Your task to perform on an android device: empty trash in the gmail app Image 0: 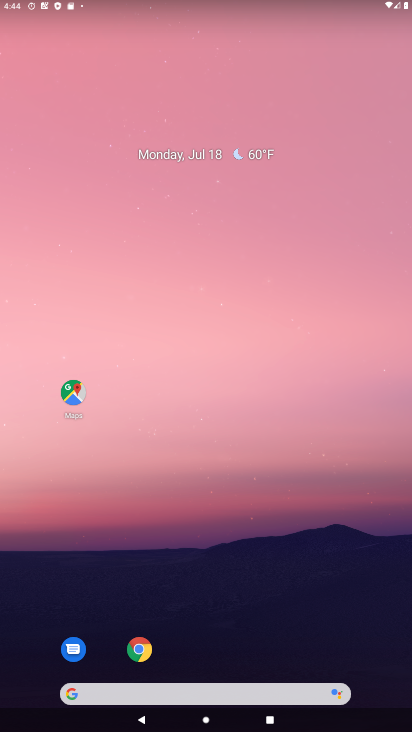
Step 0: drag from (215, 556) to (190, 0)
Your task to perform on an android device: empty trash in the gmail app Image 1: 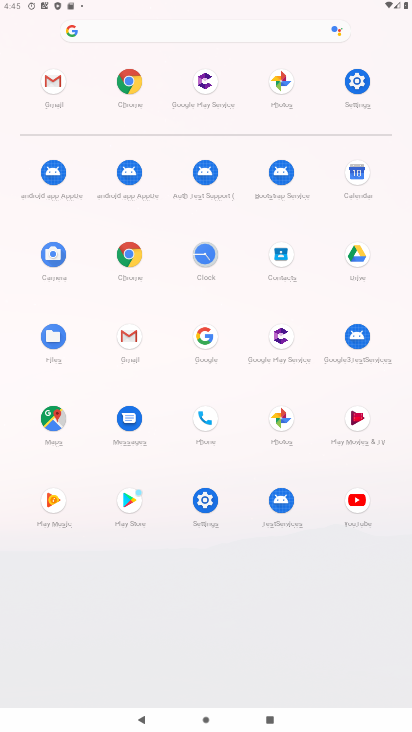
Step 1: click (126, 346)
Your task to perform on an android device: empty trash in the gmail app Image 2: 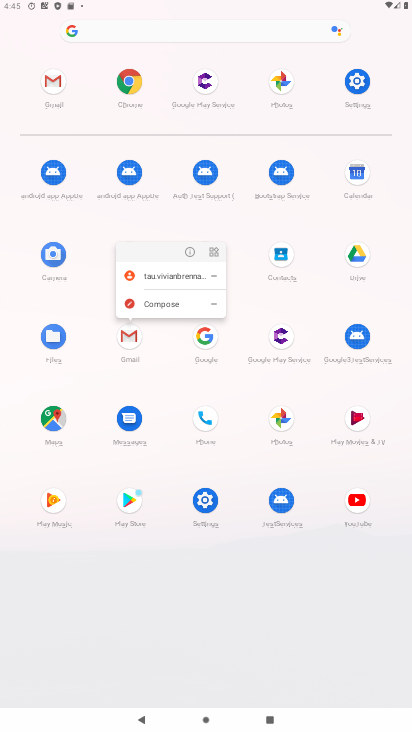
Step 2: click (129, 349)
Your task to perform on an android device: empty trash in the gmail app Image 3: 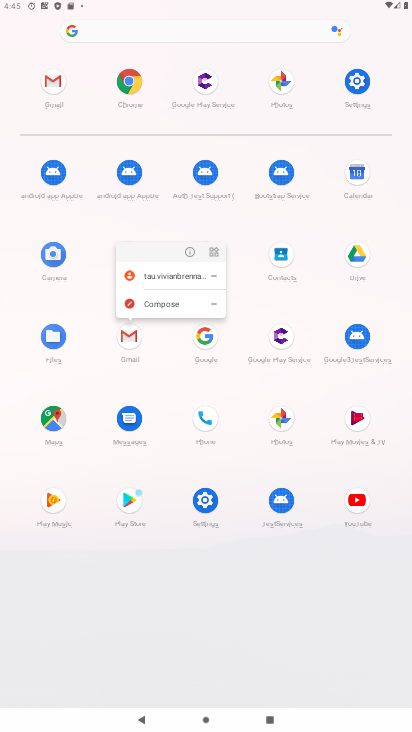
Step 3: click (131, 349)
Your task to perform on an android device: empty trash in the gmail app Image 4: 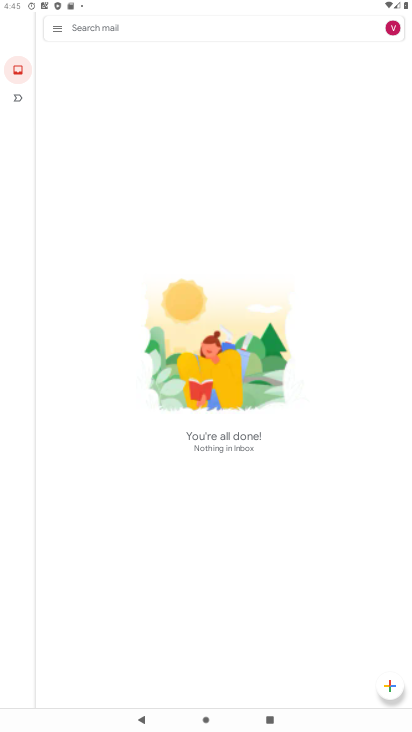
Step 4: click (53, 23)
Your task to perform on an android device: empty trash in the gmail app Image 5: 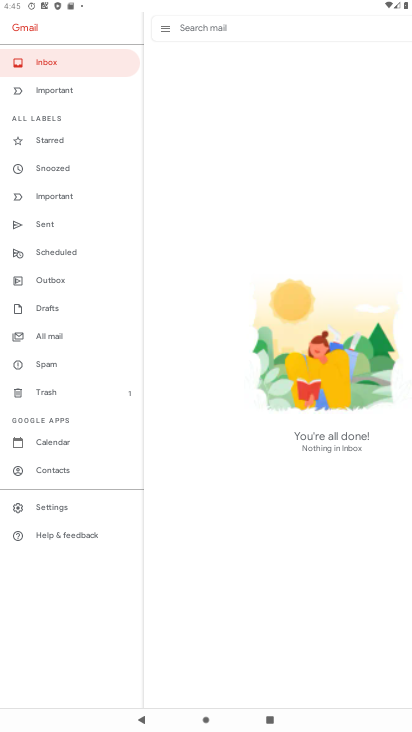
Step 5: click (56, 390)
Your task to perform on an android device: empty trash in the gmail app Image 6: 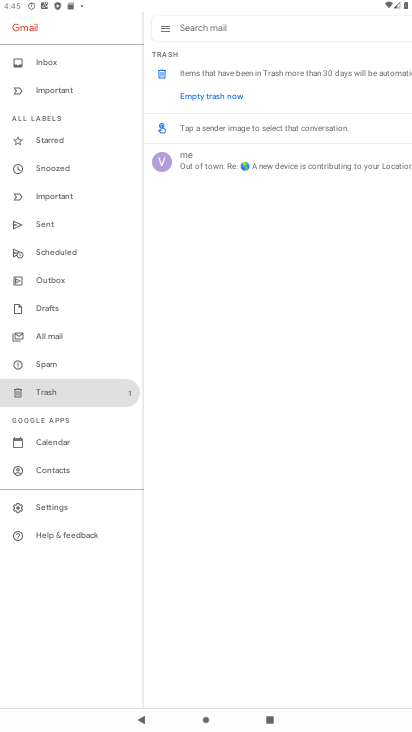
Step 6: click (49, 396)
Your task to perform on an android device: empty trash in the gmail app Image 7: 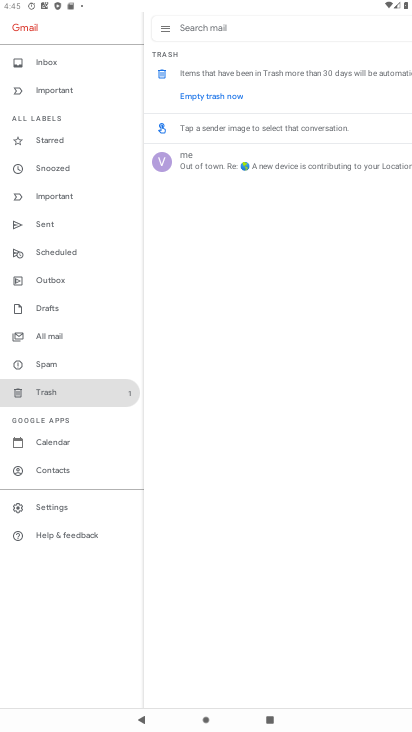
Step 7: click (215, 95)
Your task to perform on an android device: empty trash in the gmail app Image 8: 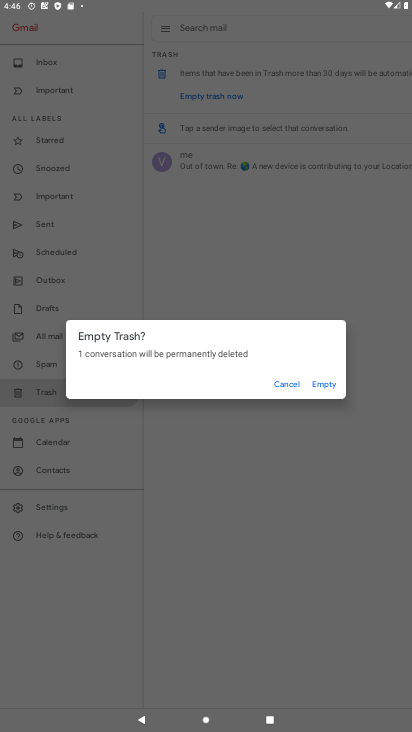
Step 8: click (323, 389)
Your task to perform on an android device: empty trash in the gmail app Image 9: 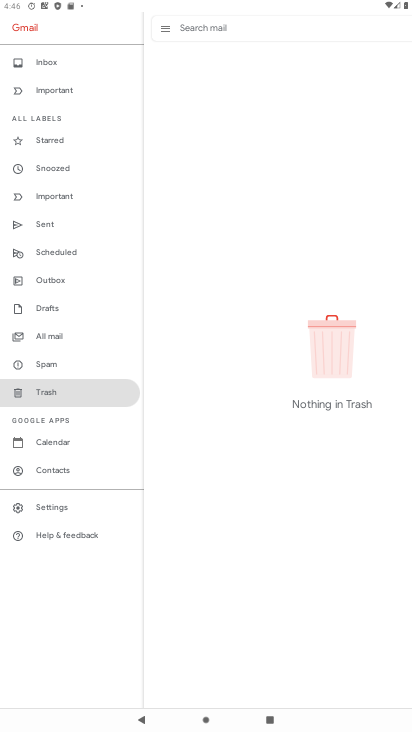
Step 9: task complete